Your task to perform on an android device: Find coffee shops on Maps Image 0: 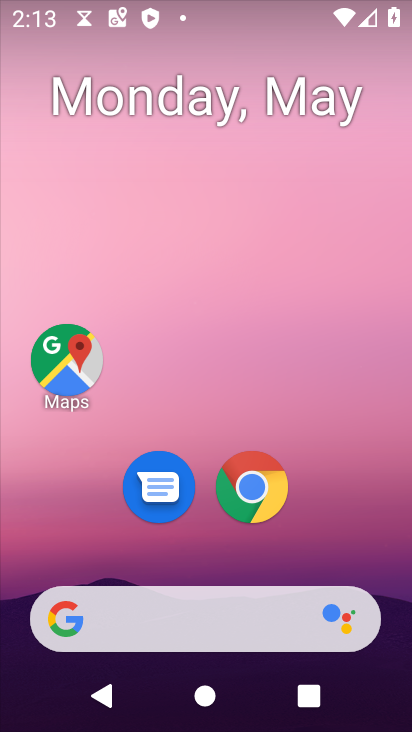
Step 0: click (74, 370)
Your task to perform on an android device: Find coffee shops on Maps Image 1: 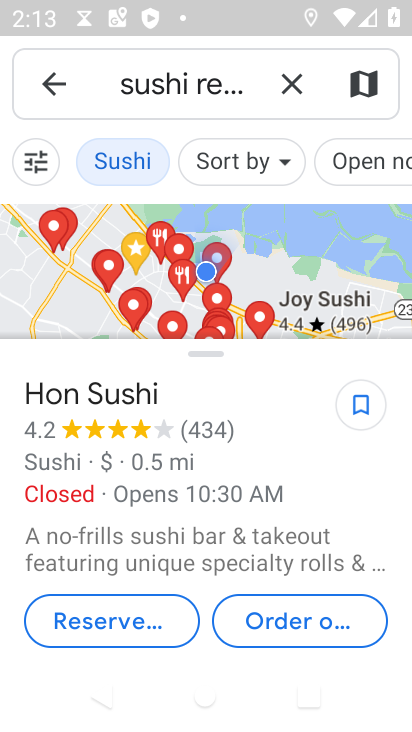
Step 1: click (282, 84)
Your task to perform on an android device: Find coffee shops on Maps Image 2: 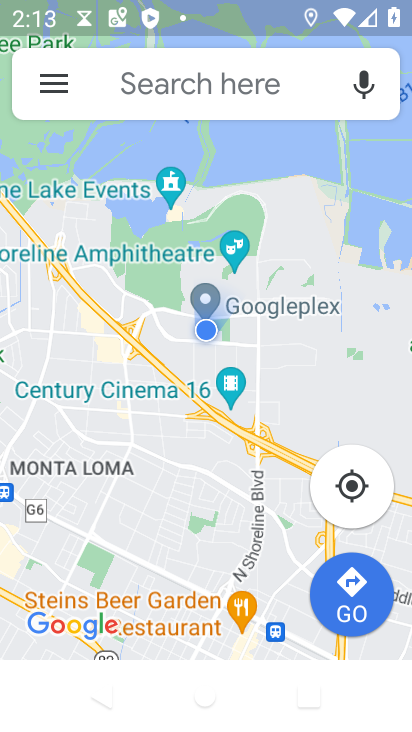
Step 2: type "coffee shops"
Your task to perform on an android device: Find coffee shops on Maps Image 3: 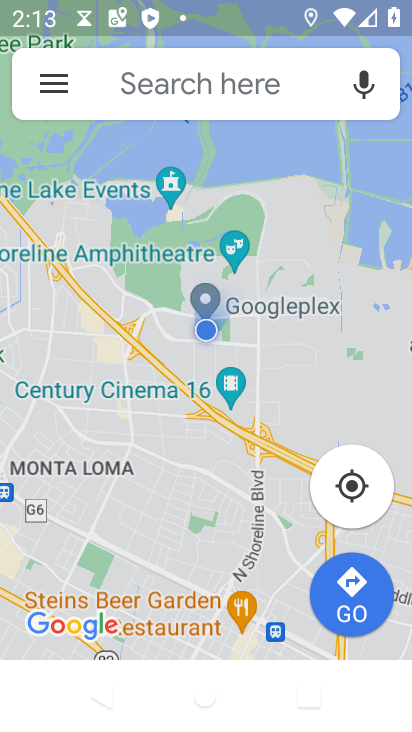
Step 3: click (194, 76)
Your task to perform on an android device: Find coffee shops on Maps Image 4: 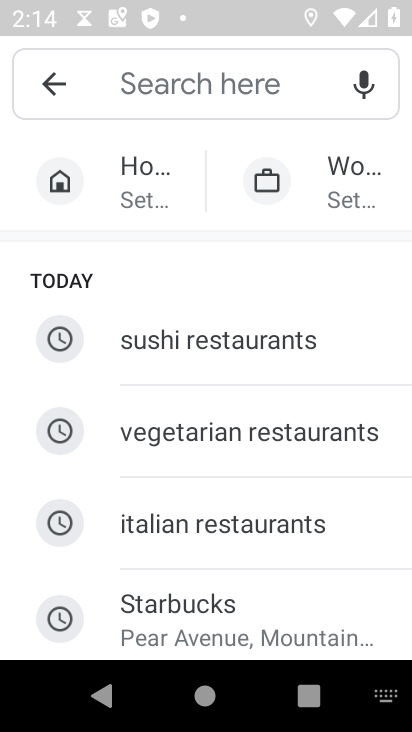
Step 4: type "coffee shops"
Your task to perform on an android device: Find coffee shops on Maps Image 5: 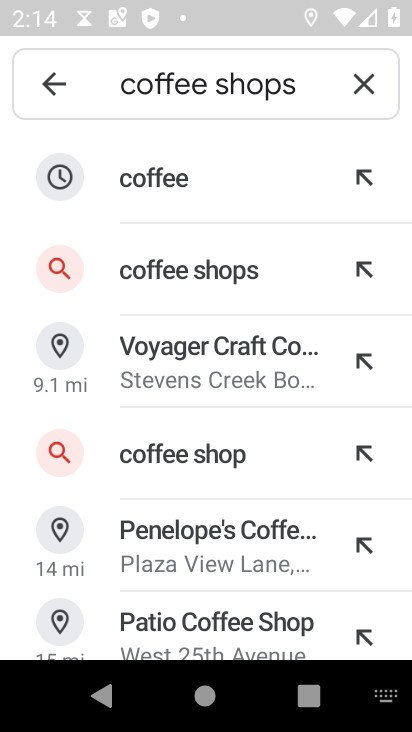
Step 5: click (258, 266)
Your task to perform on an android device: Find coffee shops on Maps Image 6: 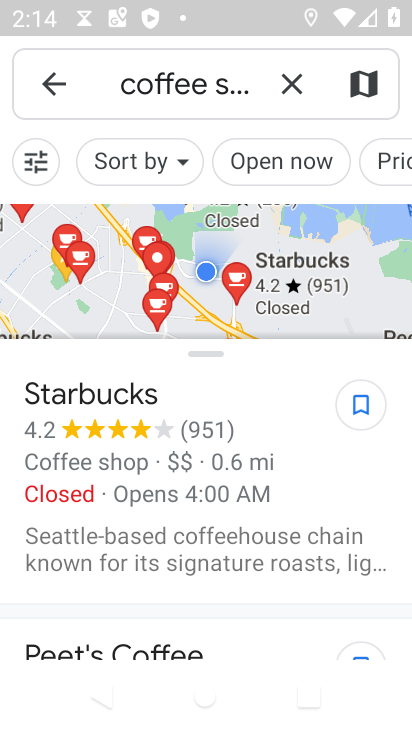
Step 6: task complete